Your task to perform on an android device: turn notification dots off Image 0: 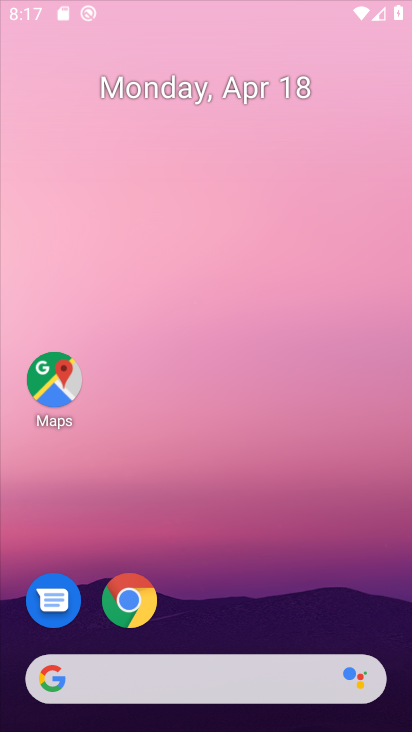
Step 0: drag from (238, 178) to (201, 98)
Your task to perform on an android device: turn notification dots off Image 1: 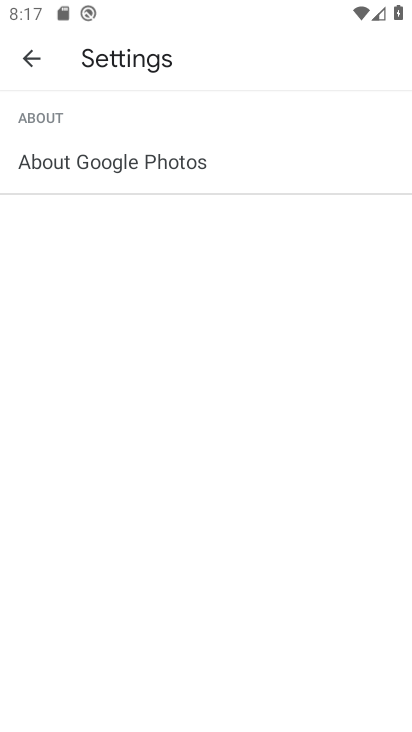
Step 1: press back button
Your task to perform on an android device: turn notification dots off Image 2: 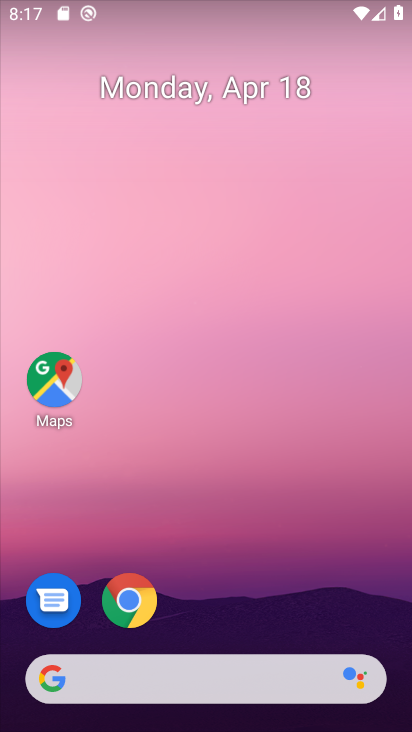
Step 2: drag from (321, 624) to (253, 19)
Your task to perform on an android device: turn notification dots off Image 3: 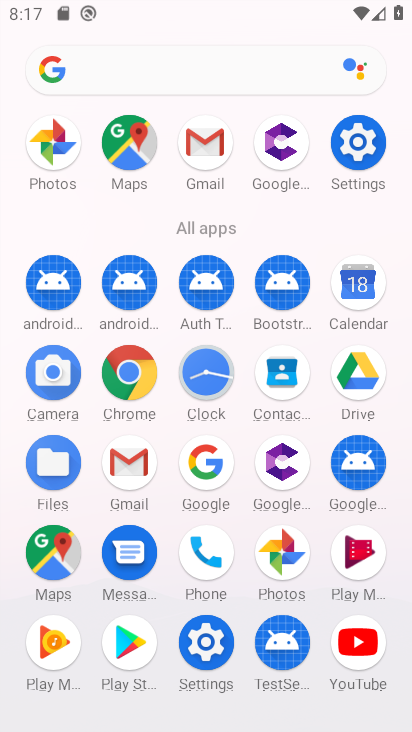
Step 3: click (204, 641)
Your task to perform on an android device: turn notification dots off Image 4: 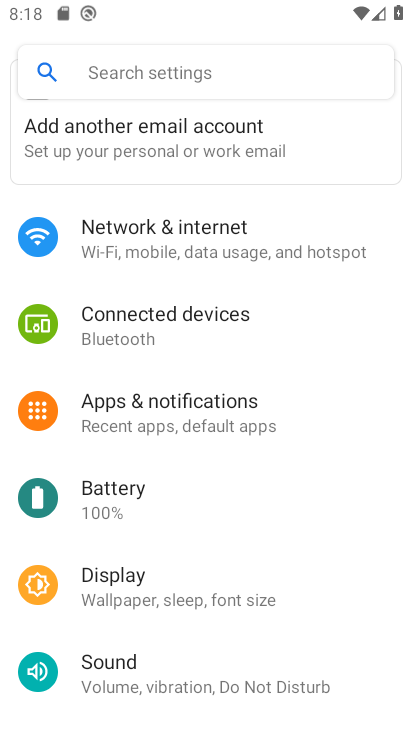
Step 4: click (229, 394)
Your task to perform on an android device: turn notification dots off Image 5: 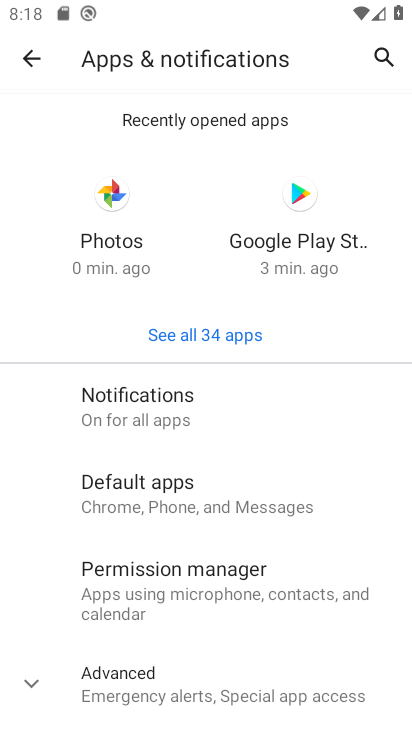
Step 5: click (212, 414)
Your task to perform on an android device: turn notification dots off Image 6: 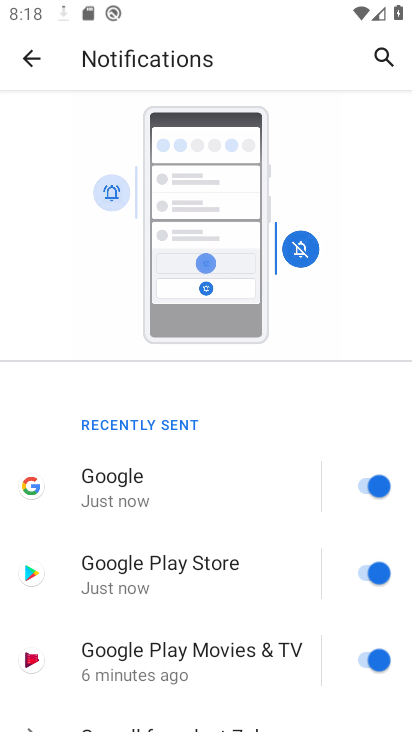
Step 6: click (231, 218)
Your task to perform on an android device: turn notification dots off Image 7: 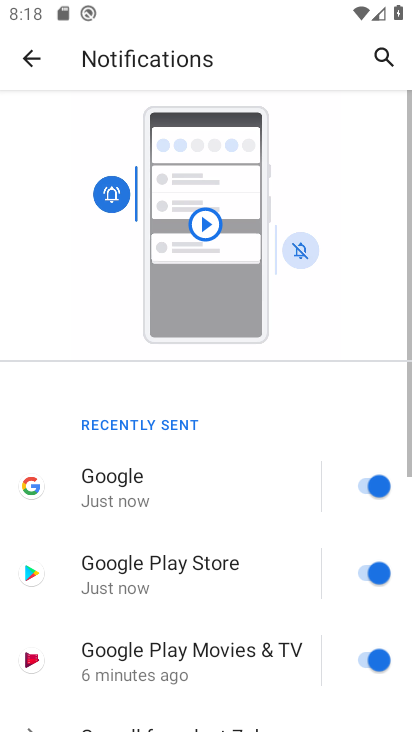
Step 7: drag from (226, 590) to (204, 137)
Your task to perform on an android device: turn notification dots off Image 8: 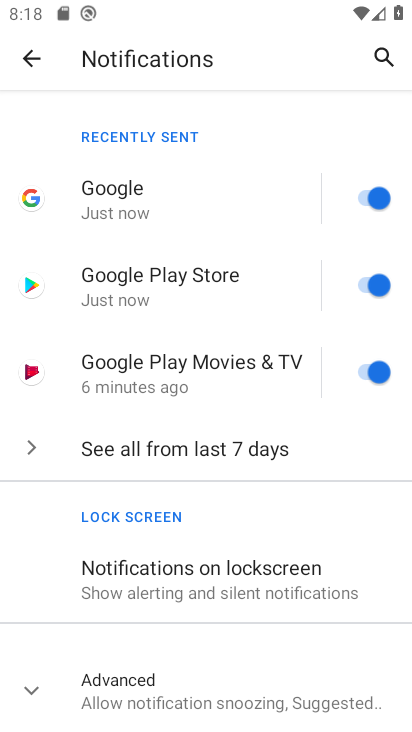
Step 8: drag from (230, 565) to (228, 251)
Your task to perform on an android device: turn notification dots off Image 9: 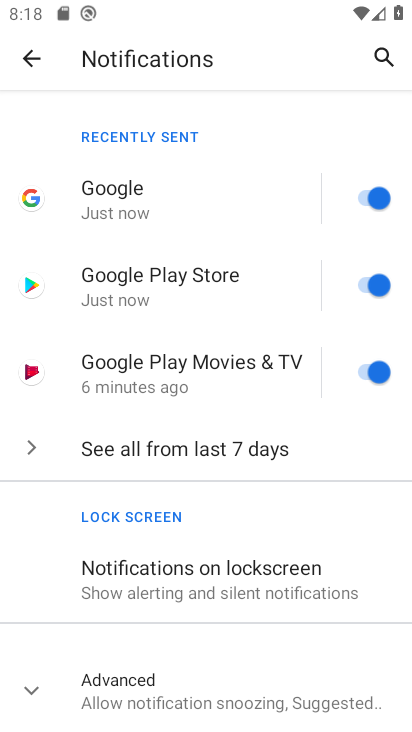
Step 9: click (31, 685)
Your task to perform on an android device: turn notification dots off Image 10: 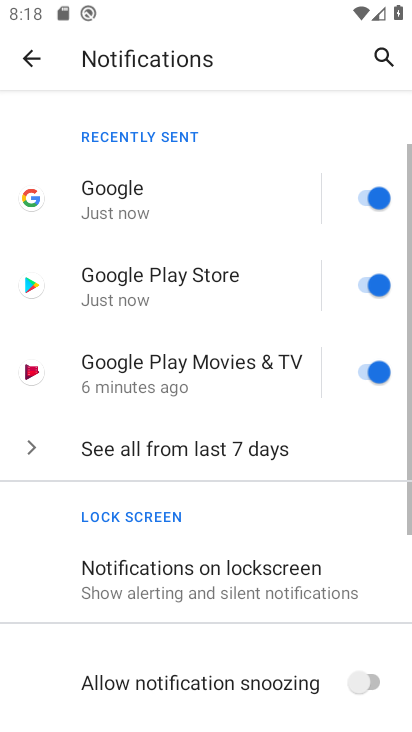
Step 10: drag from (186, 606) to (199, 216)
Your task to perform on an android device: turn notification dots off Image 11: 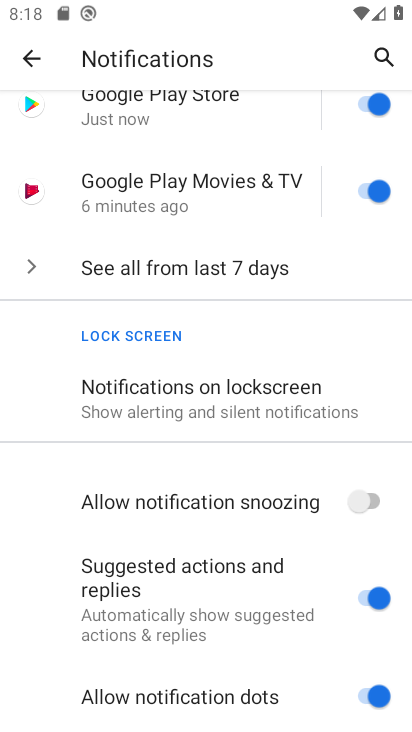
Step 11: click (371, 690)
Your task to perform on an android device: turn notification dots off Image 12: 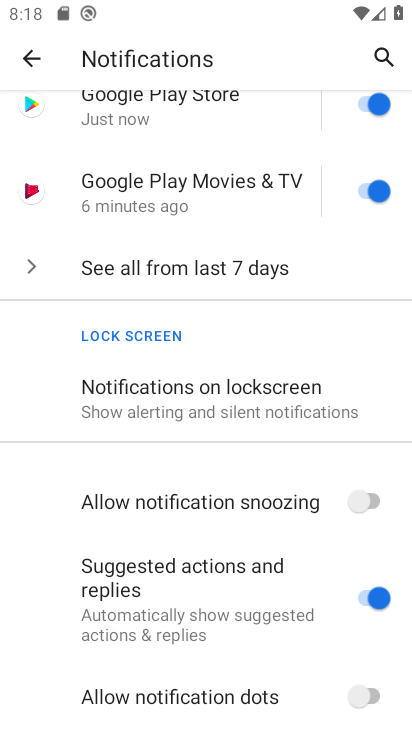
Step 12: task complete